Your task to perform on an android device: check battery use Image 0: 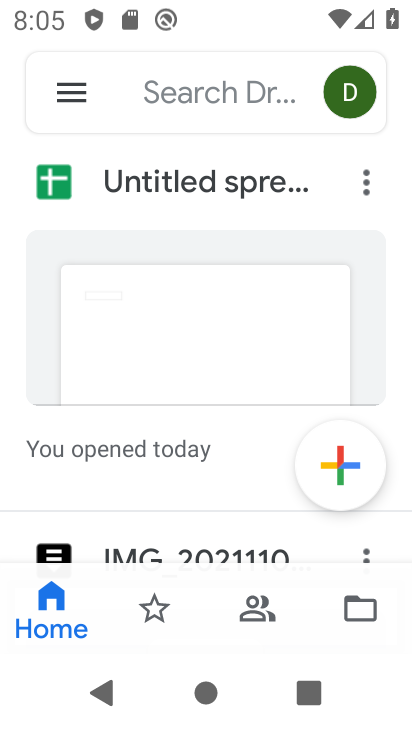
Step 0: press home button
Your task to perform on an android device: check battery use Image 1: 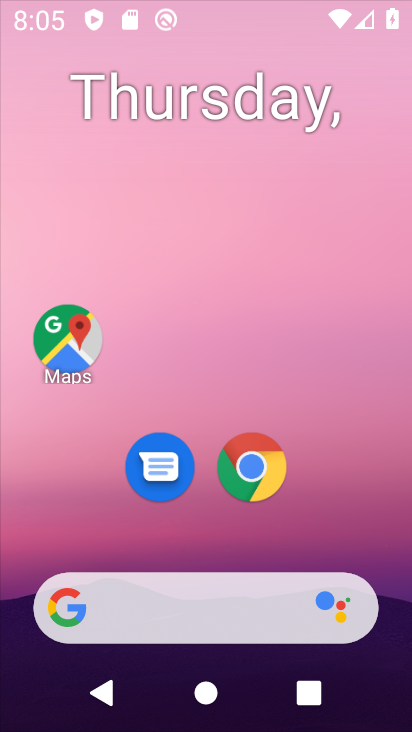
Step 1: drag from (242, 642) to (290, 229)
Your task to perform on an android device: check battery use Image 2: 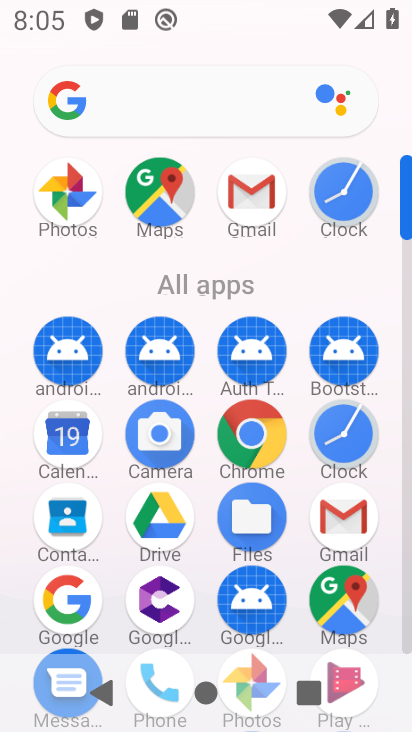
Step 2: drag from (254, 567) to (306, 246)
Your task to perform on an android device: check battery use Image 3: 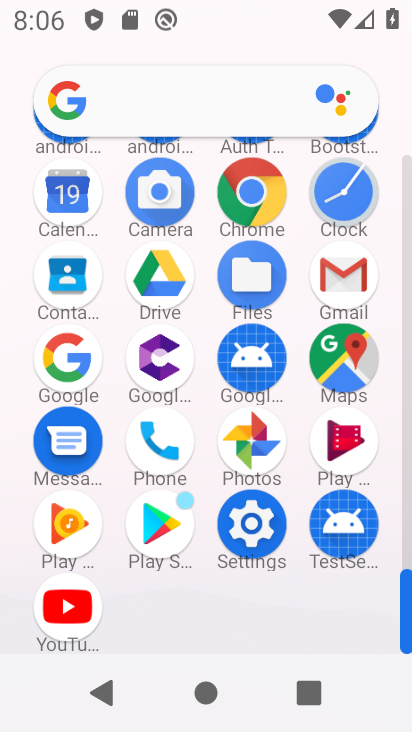
Step 3: click (242, 522)
Your task to perform on an android device: check battery use Image 4: 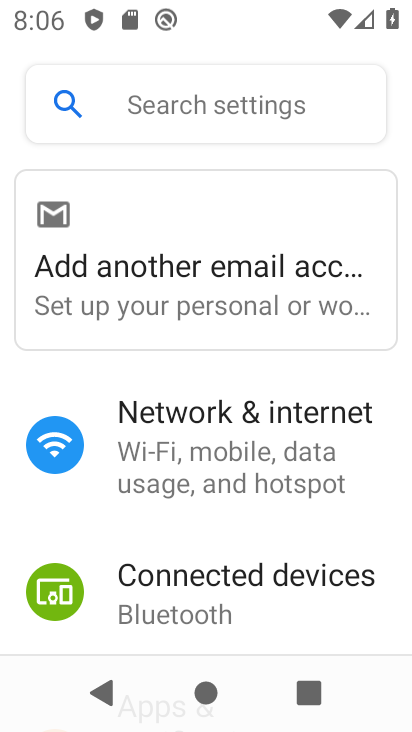
Step 4: drag from (195, 584) to (233, 281)
Your task to perform on an android device: check battery use Image 5: 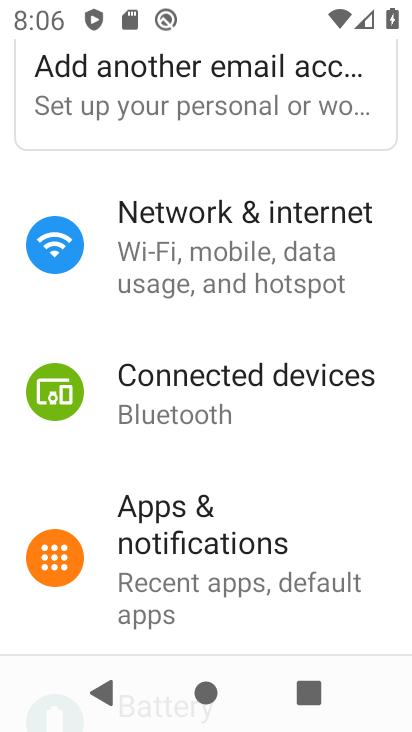
Step 5: drag from (175, 569) to (238, 295)
Your task to perform on an android device: check battery use Image 6: 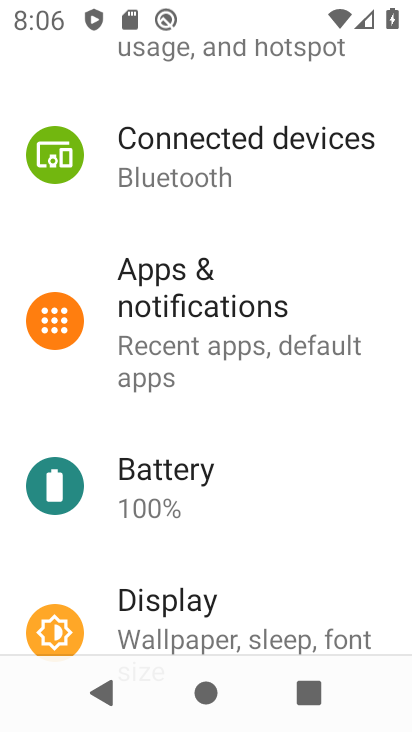
Step 6: click (166, 471)
Your task to perform on an android device: check battery use Image 7: 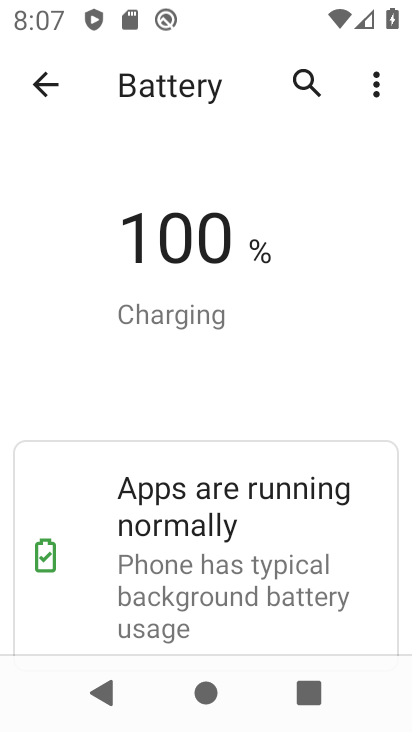
Step 7: task complete